Your task to perform on an android device: remove spam from my inbox in the gmail app Image 0: 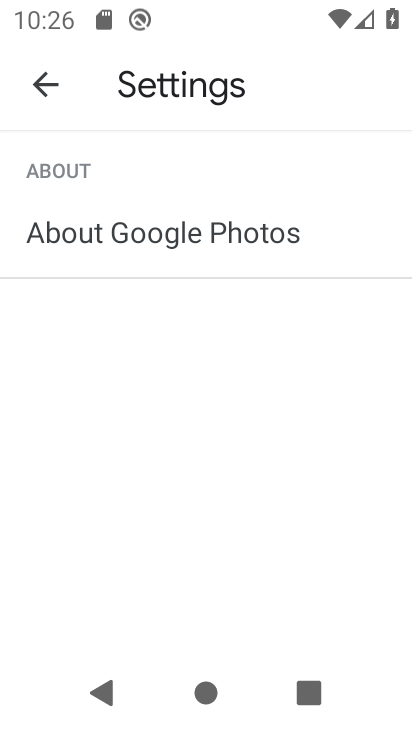
Step 0: press home button
Your task to perform on an android device: remove spam from my inbox in the gmail app Image 1: 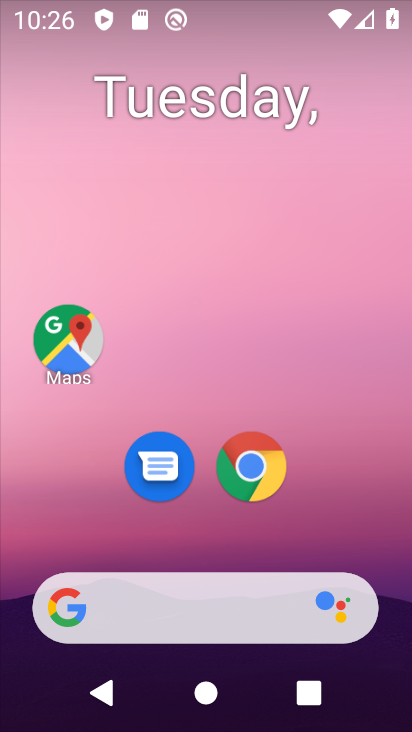
Step 1: drag from (61, 556) to (212, 151)
Your task to perform on an android device: remove spam from my inbox in the gmail app Image 2: 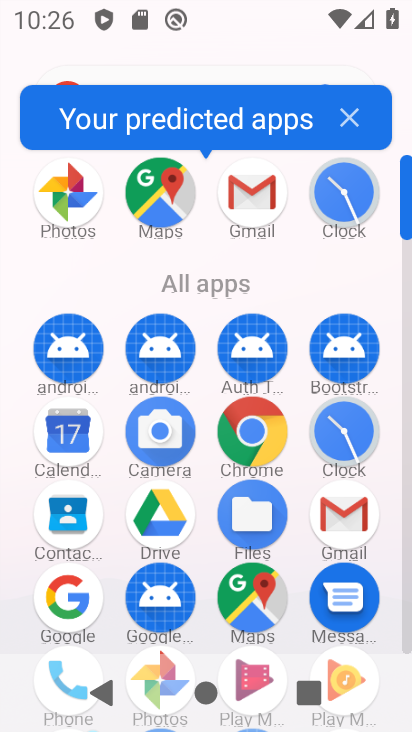
Step 2: click (328, 503)
Your task to perform on an android device: remove spam from my inbox in the gmail app Image 3: 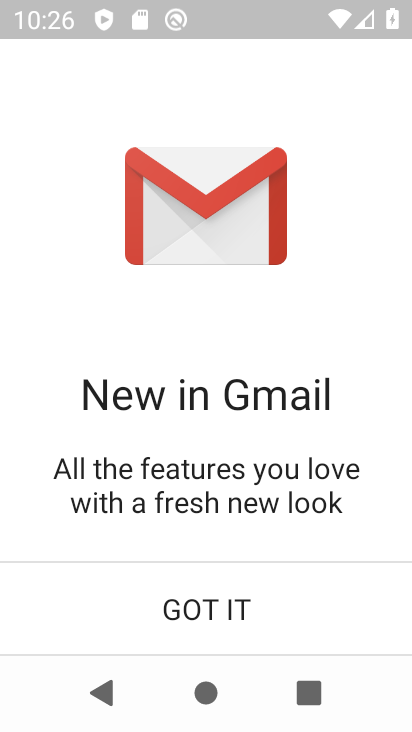
Step 3: click (241, 634)
Your task to perform on an android device: remove spam from my inbox in the gmail app Image 4: 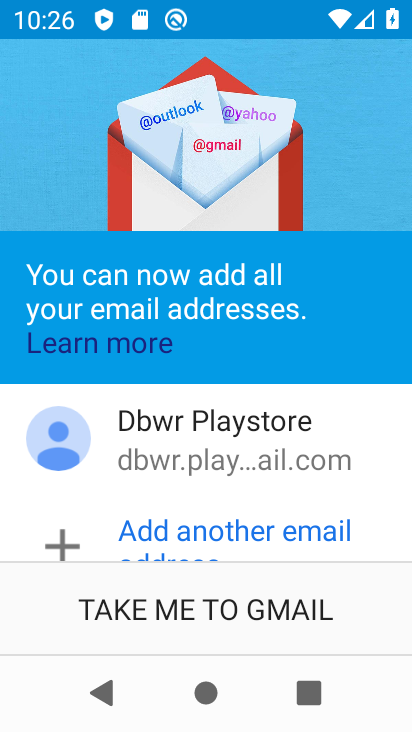
Step 4: click (241, 634)
Your task to perform on an android device: remove spam from my inbox in the gmail app Image 5: 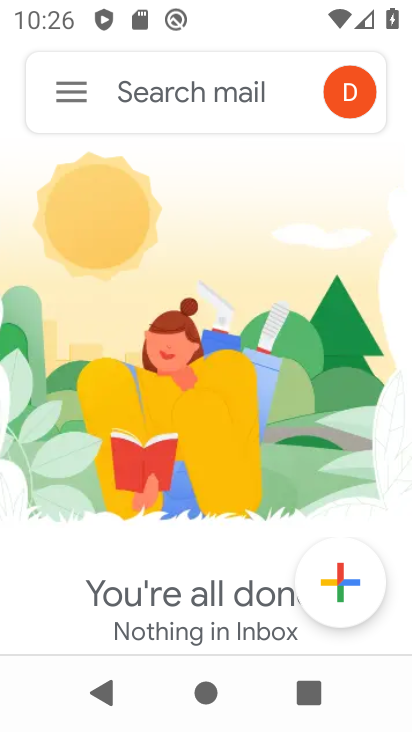
Step 5: click (98, 101)
Your task to perform on an android device: remove spam from my inbox in the gmail app Image 6: 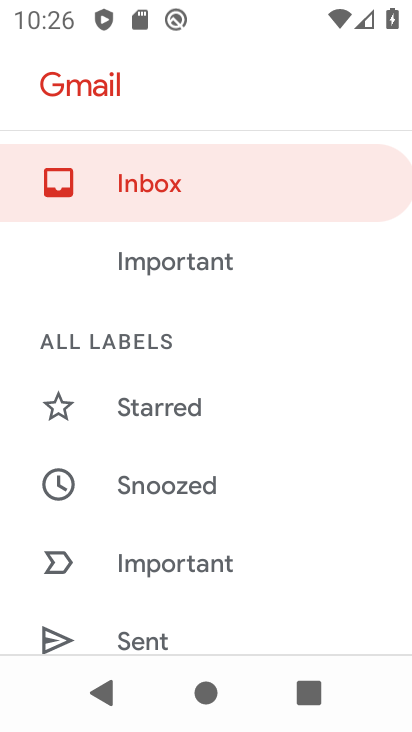
Step 6: drag from (149, 594) to (283, 219)
Your task to perform on an android device: remove spam from my inbox in the gmail app Image 7: 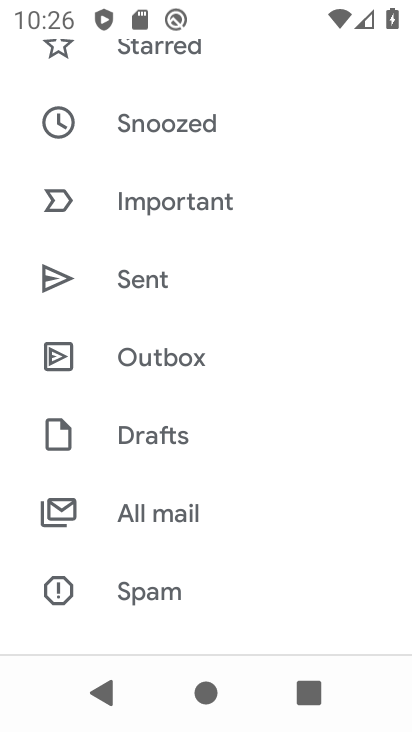
Step 7: click (162, 603)
Your task to perform on an android device: remove spam from my inbox in the gmail app Image 8: 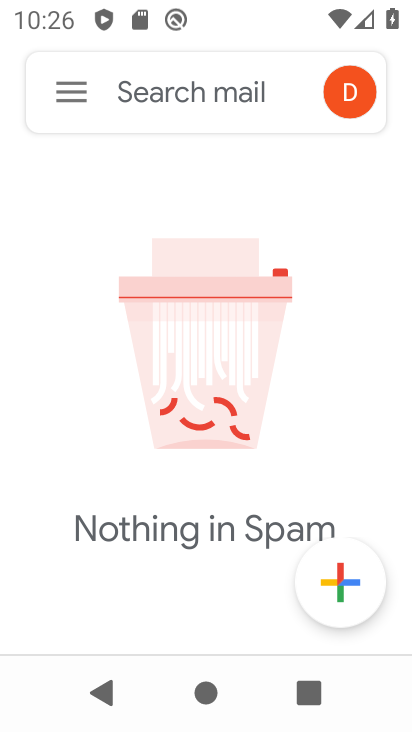
Step 8: task complete